Your task to perform on an android device: turn on location history Image 0: 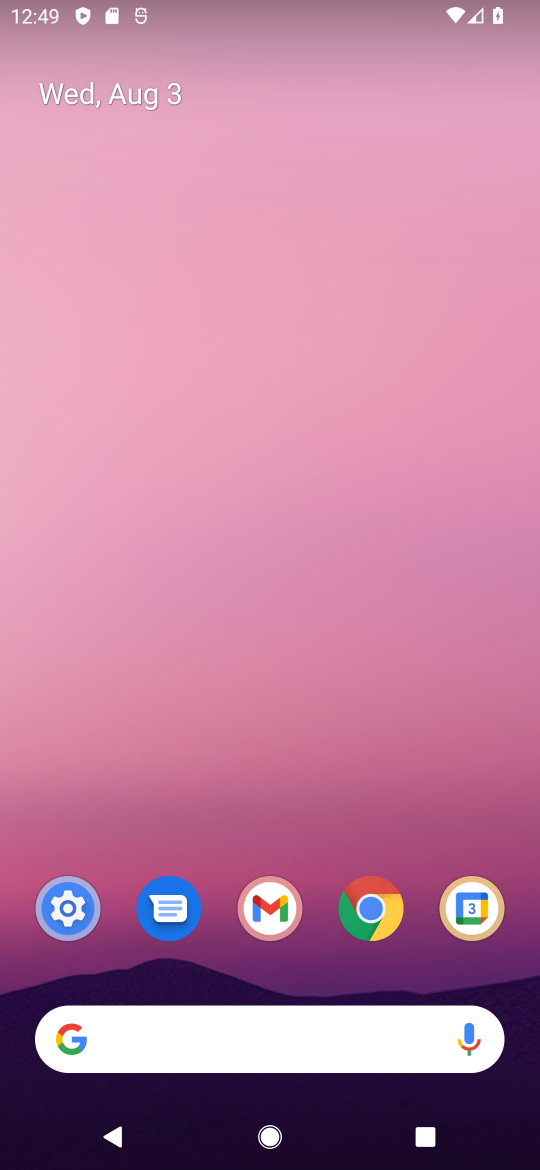
Step 0: click (64, 913)
Your task to perform on an android device: turn on location history Image 1: 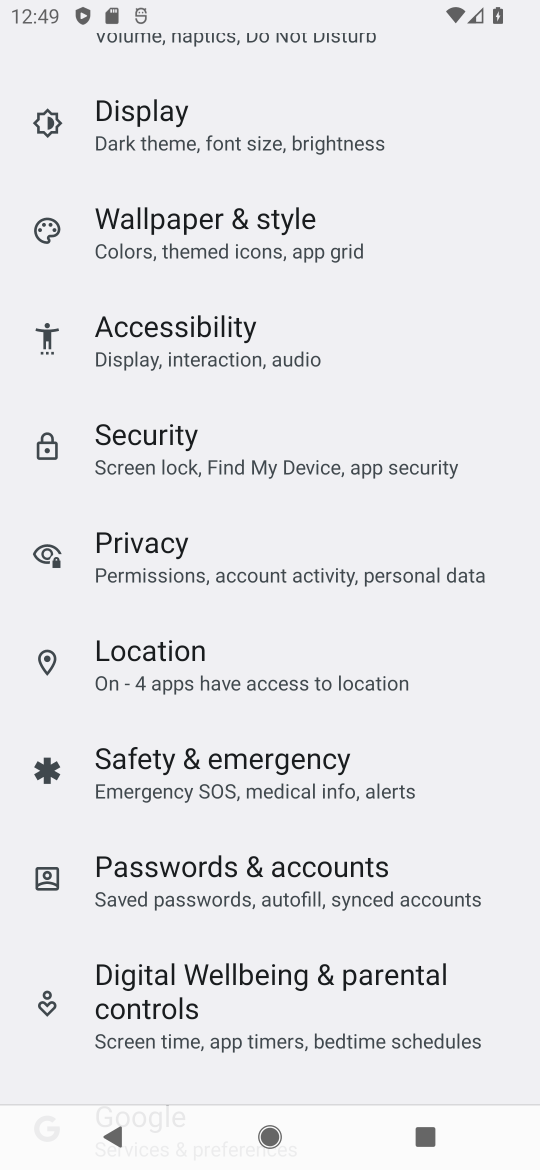
Step 1: press back button
Your task to perform on an android device: turn on location history Image 2: 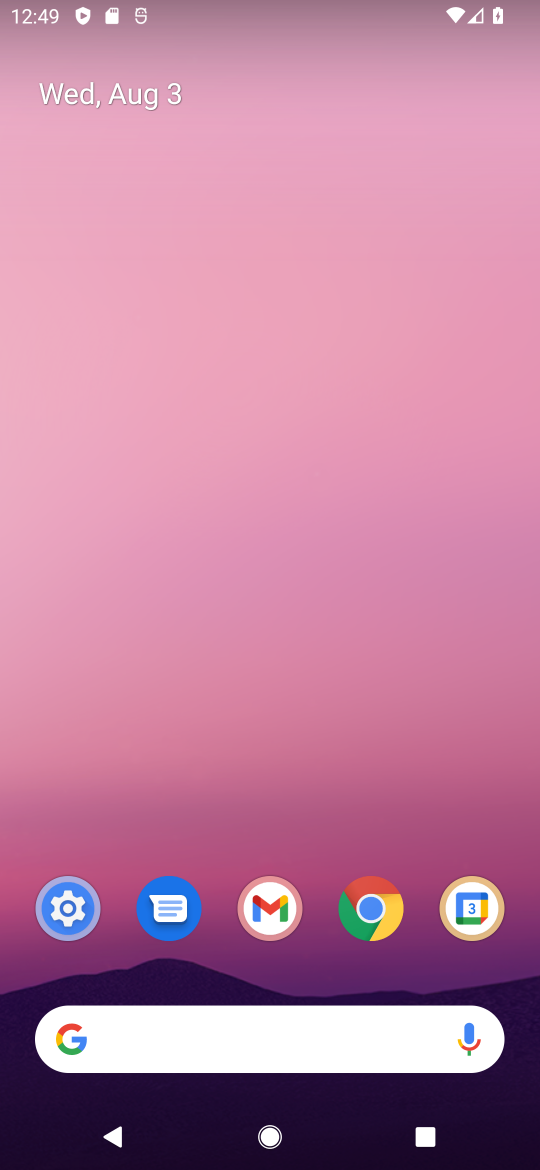
Step 2: click (80, 913)
Your task to perform on an android device: turn on location history Image 3: 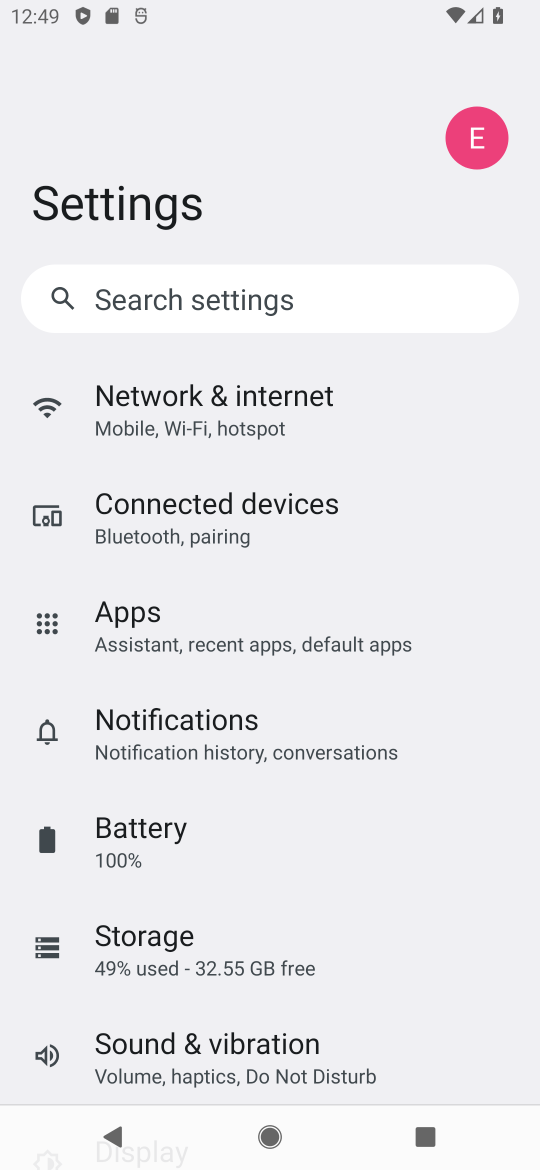
Step 3: drag from (198, 1000) to (177, 502)
Your task to perform on an android device: turn on location history Image 4: 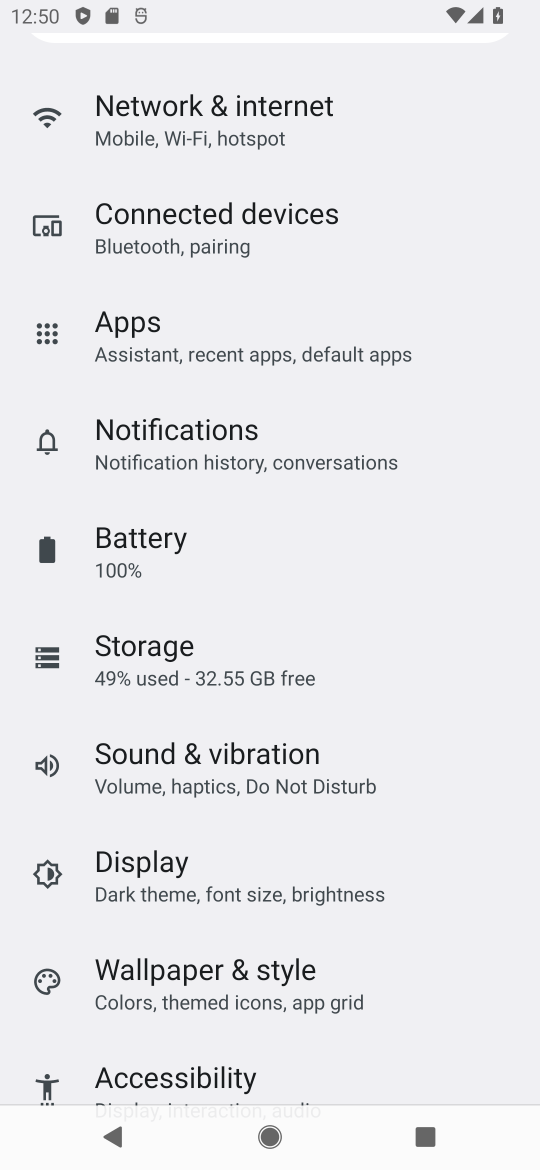
Step 4: drag from (170, 859) to (230, 521)
Your task to perform on an android device: turn on location history Image 5: 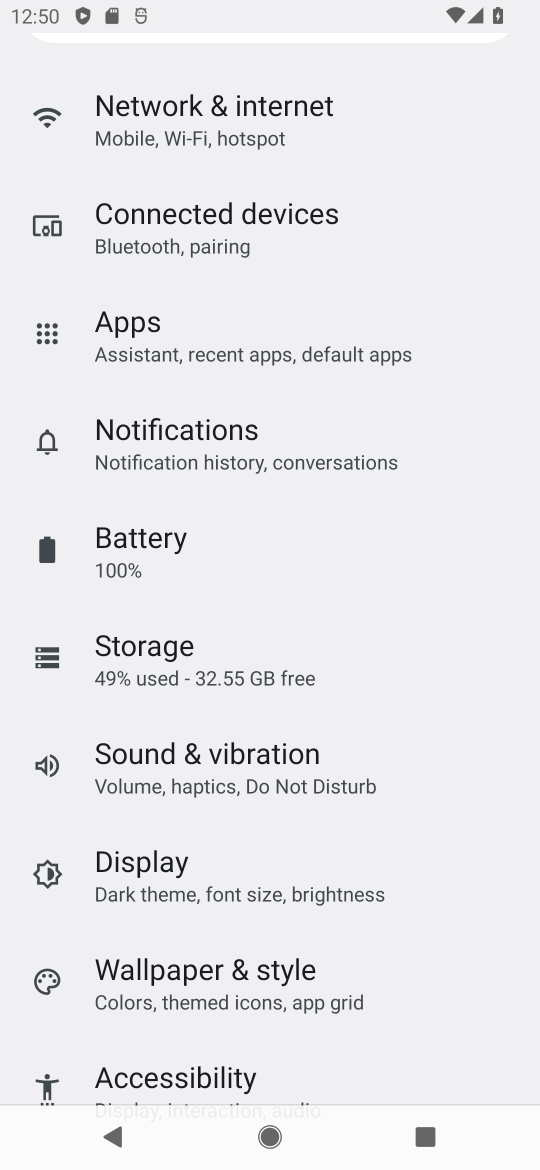
Step 5: drag from (203, 953) to (221, 553)
Your task to perform on an android device: turn on location history Image 6: 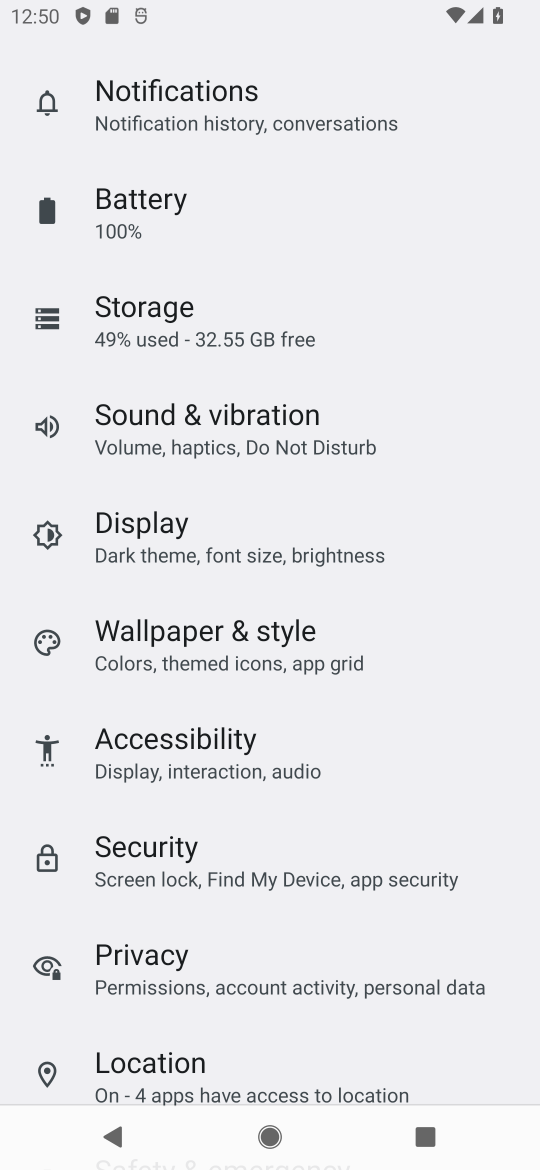
Step 6: click (180, 1061)
Your task to perform on an android device: turn on location history Image 7: 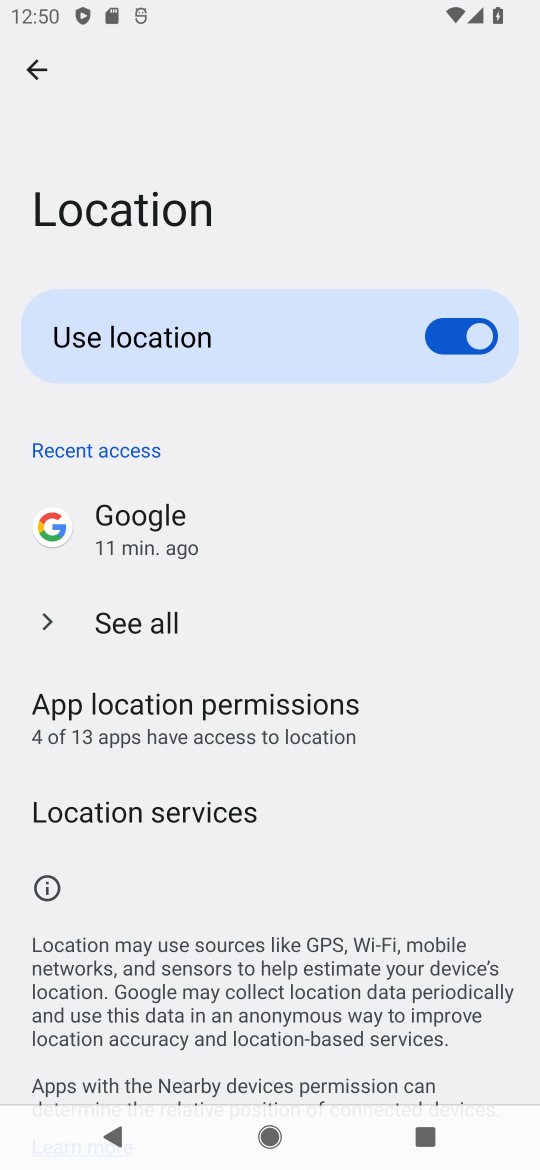
Step 7: click (195, 815)
Your task to perform on an android device: turn on location history Image 8: 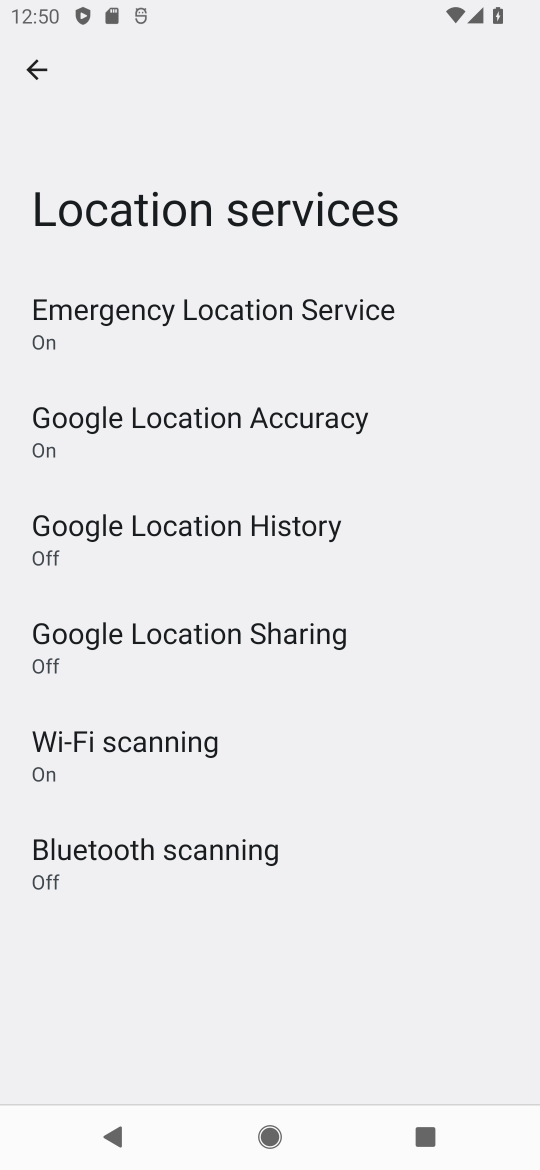
Step 8: click (188, 531)
Your task to perform on an android device: turn on location history Image 9: 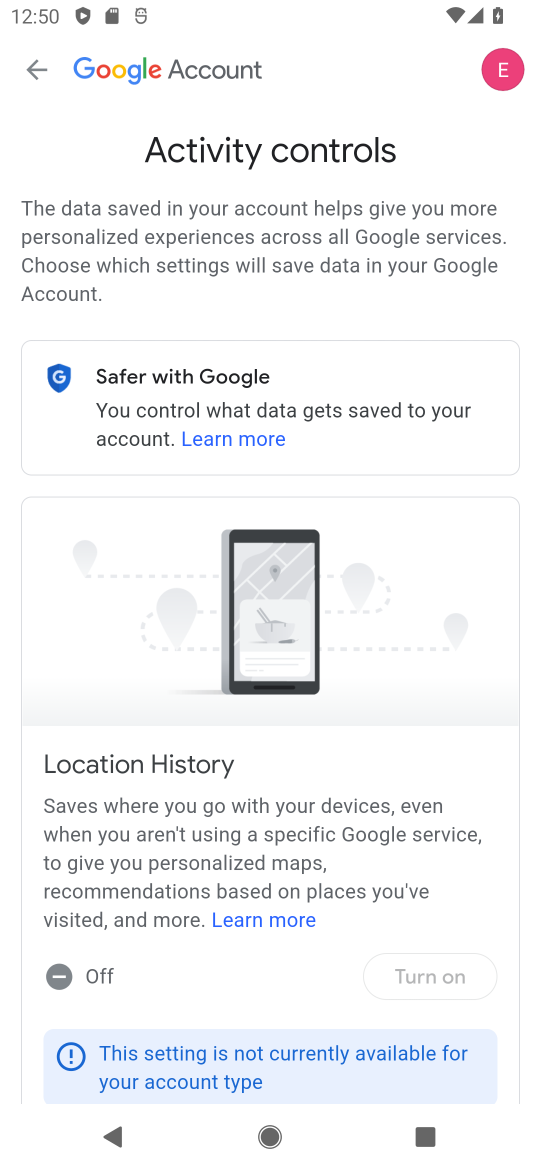
Step 9: task complete